Your task to perform on an android device: toggle show notifications on the lock screen Image 0: 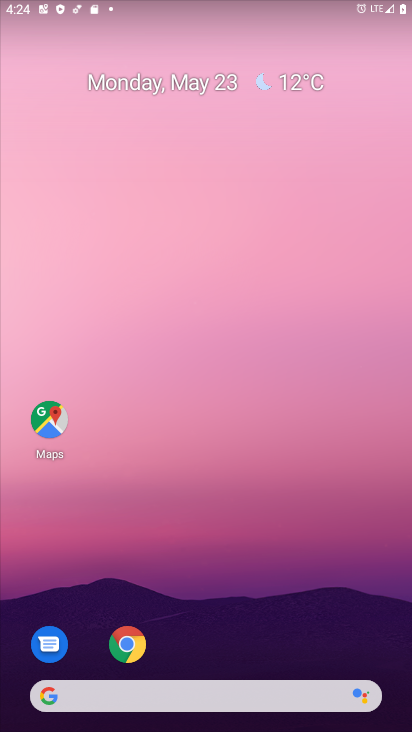
Step 0: drag from (228, 640) to (229, 99)
Your task to perform on an android device: toggle show notifications on the lock screen Image 1: 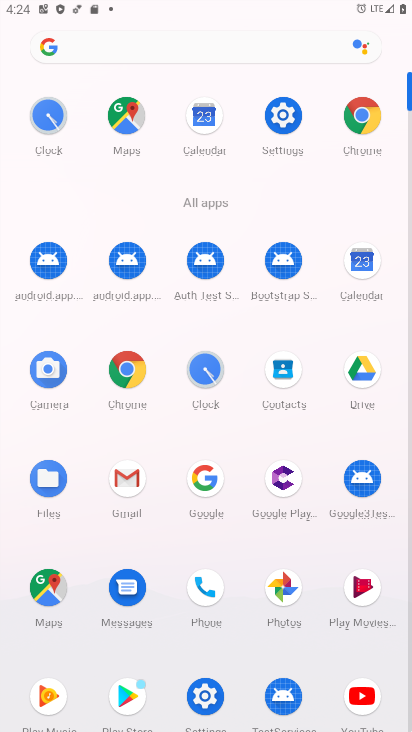
Step 1: click (286, 125)
Your task to perform on an android device: toggle show notifications on the lock screen Image 2: 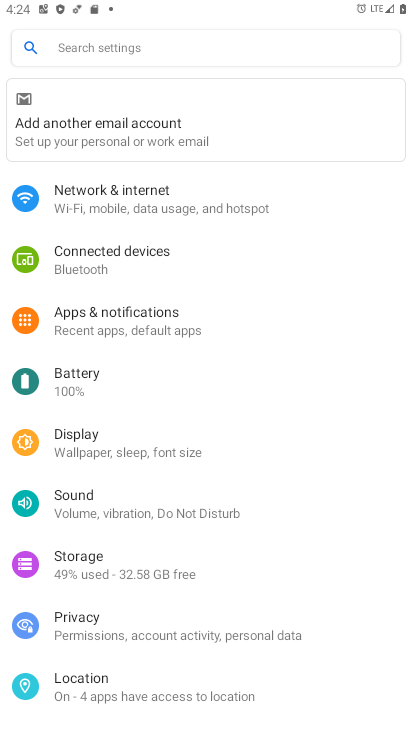
Step 2: click (217, 320)
Your task to perform on an android device: toggle show notifications on the lock screen Image 3: 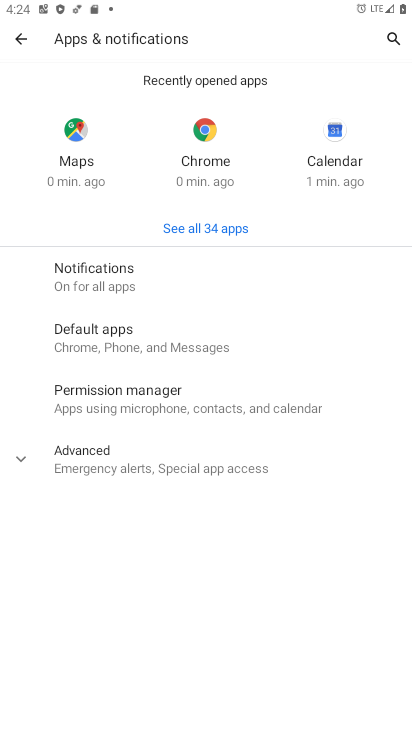
Step 3: click (188, 278)
Your task to perform on an android device: toggle show notifications on the lock screen Image 4: 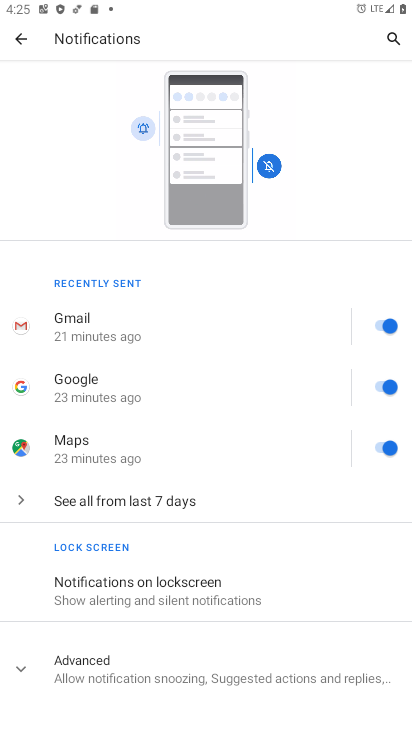
Step 4: click (213, 612)
Your task to perform on an android device: toggle show notifications on the lock screen Image 5: 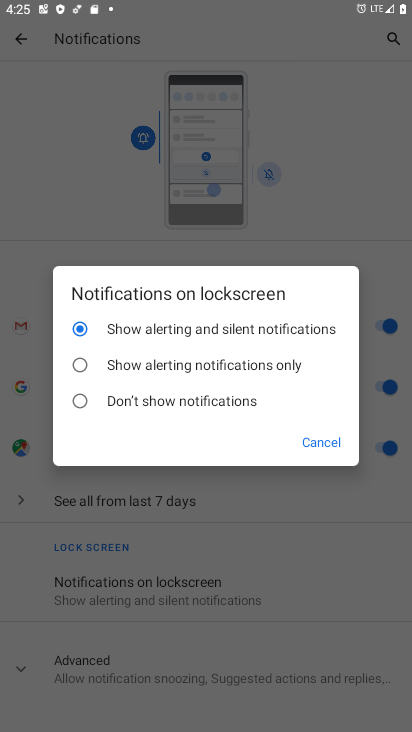
Step 5: click (223, 371)
Your task to perform on an android device: toggle show notifications on the lock screen Image 6: 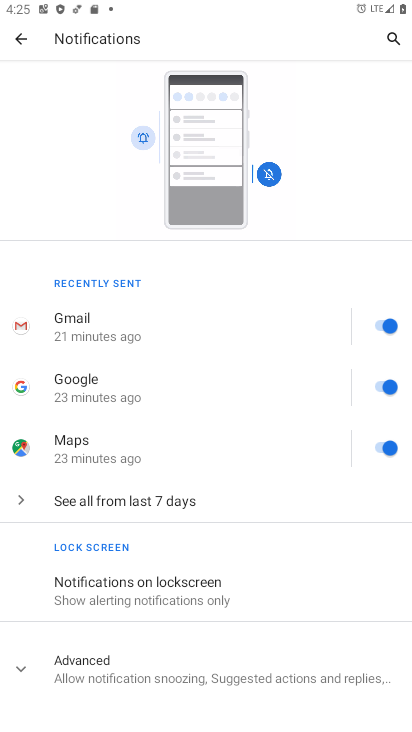
Step 6: task complete